Your task to perform on an android device: Open the phone app and click the voicemail tab. Image 0: 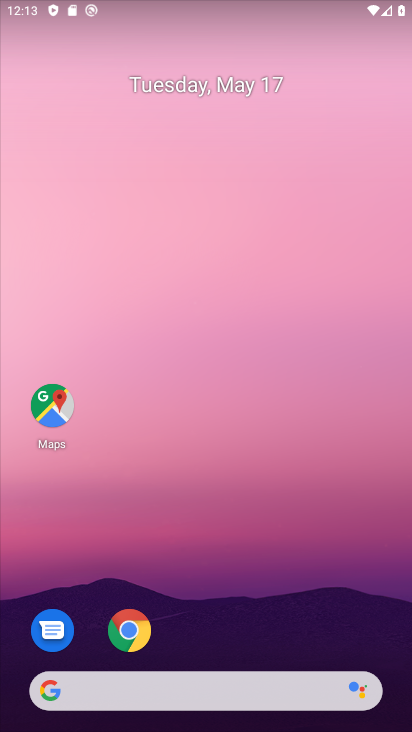
Step 0: click (265, 104)
Your task to perform on an android device: Open the phone app and click the voicemail tab. Image 1: 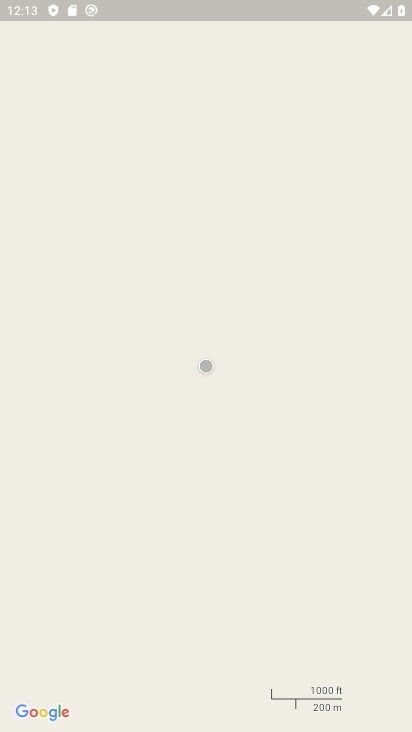
Step 1: press home button
Your task to perform on an android device: Open the phone app and click the voicemail tab. Image 2: 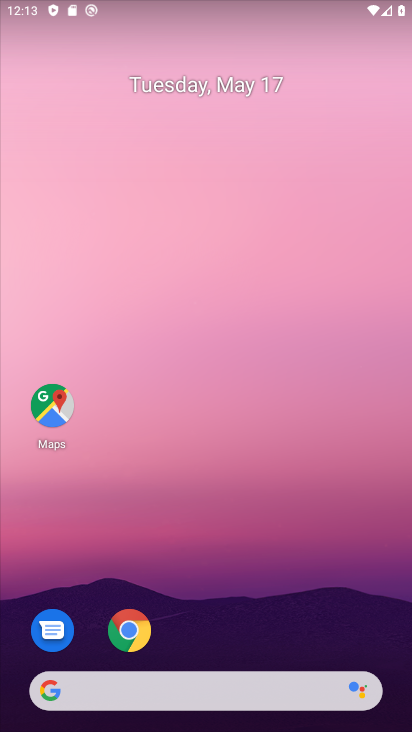
Step 2: drag from (212, 658) to (274, 75)
Your task to perform on an android device: Open the phone app and click the voicemail tab. Image 3: 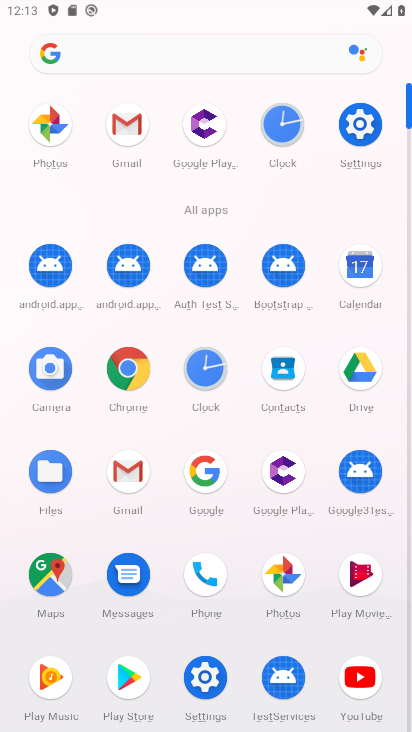
Step 3: drag from (214, 626) to (248, 453)
Your task to perform on an android device: Open the phone app and click the voicemail tab. Image 4: 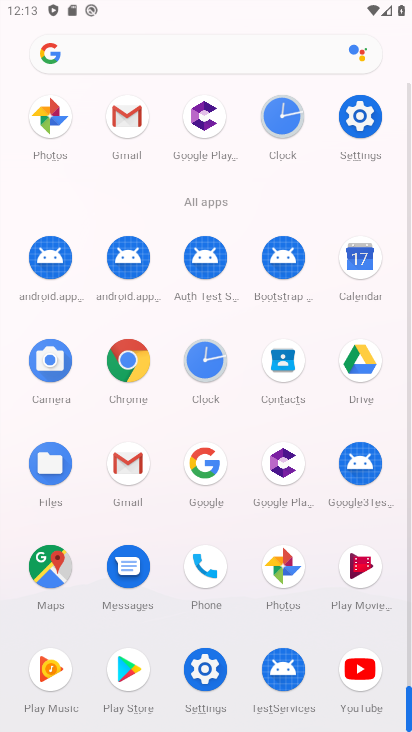
Step 4: click (204, 571)
Your task to perform on an android device: Open the phone app and click the voicemail tab. Image 5: 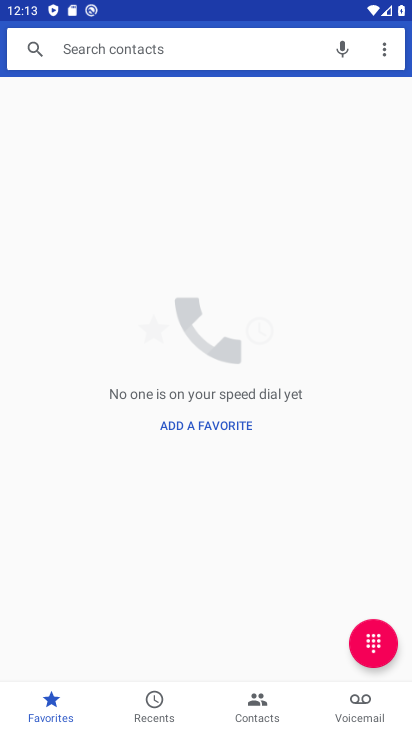
Step 5: click (371, 708)
Your task to perform on an android device: Open the phone app and click the voicemail tab. Image 6: 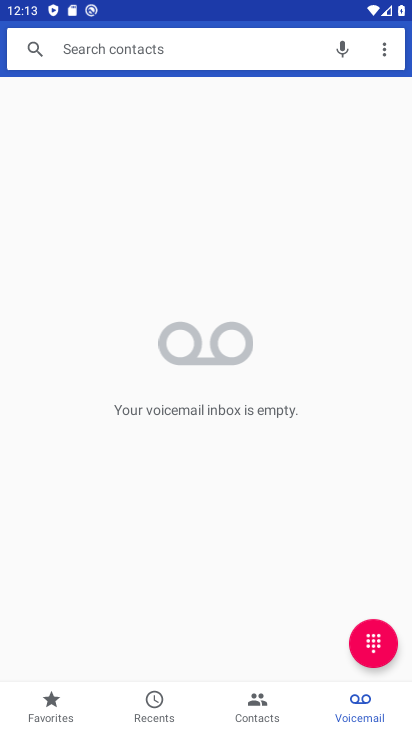
Step 6: task complete